Your task to perform on an android device: What's on my calendar today? Image 0: 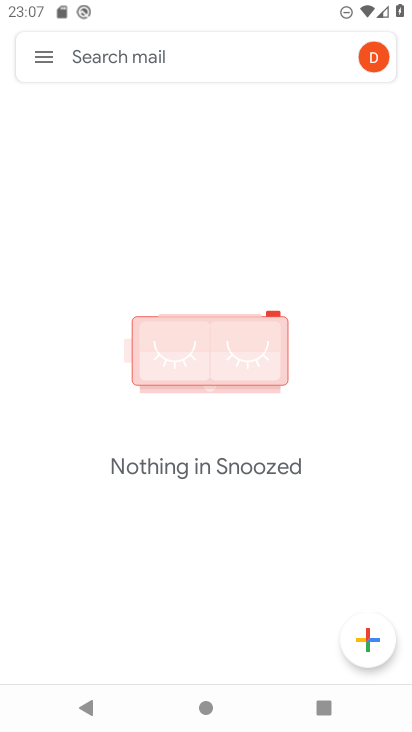
Step 0: press home button
Your task to perform on an android device: What's on my calendar today? Image 1: 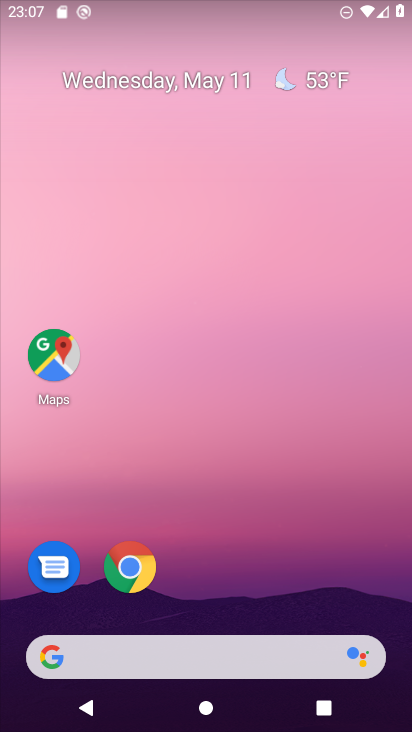
Step 1: drag from (225, 639) to (188, 146)
Your task to perform on an android device: What's on my calendar today? Image 2: 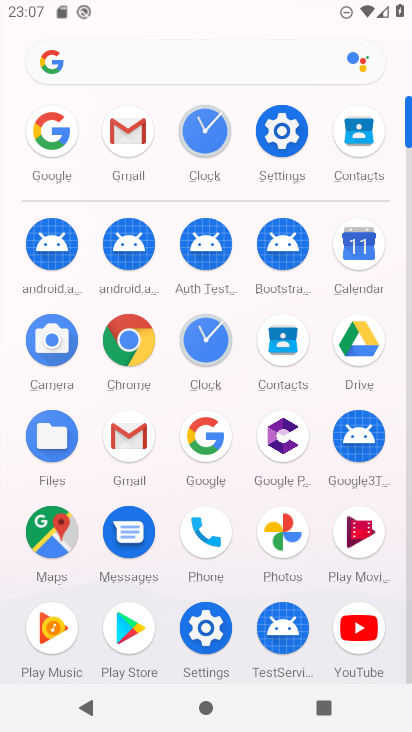
Step 2: click (359, 253)
Your task to perform on an android device: What's on my calendar today? Image 3: 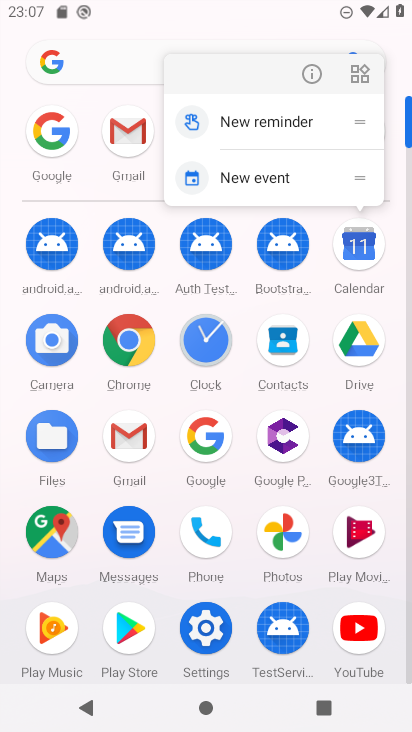
Step 3: click (361, 257)
Your task to perform on an android device: What's on my calendar today? Image 4: 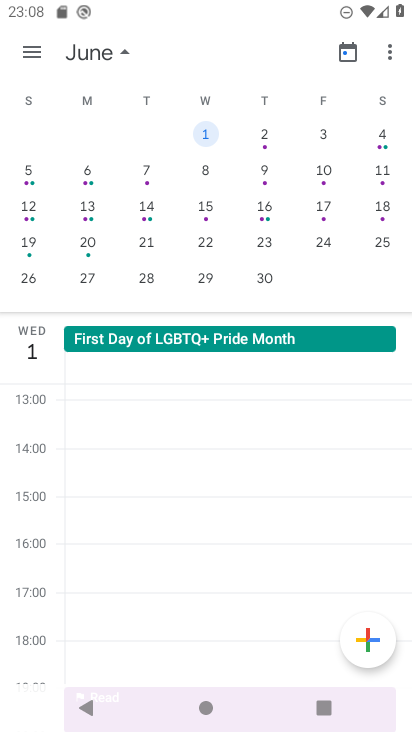
Step 4: drag from (17, 191) to (397, 242)
Your task to perform on an android device: What's on my calendar today? Image 5: 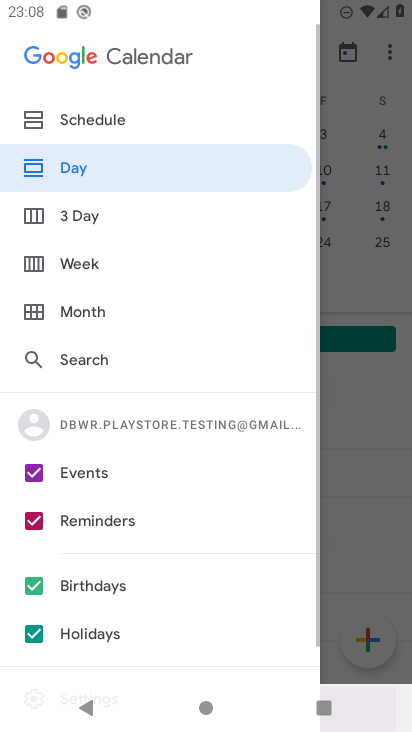
Step 5: click (370, 200)
Your task to perform on an android device: What's on my calendar today? Image 6: 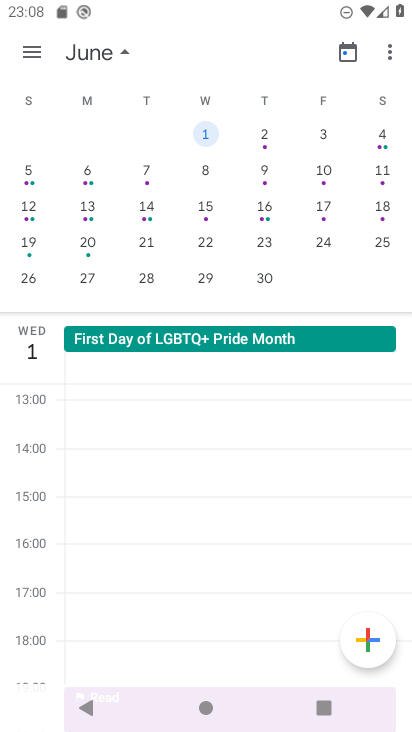
Step 6: task complete